Your task to perform on an android device: open sync settings in chrome Image 0: 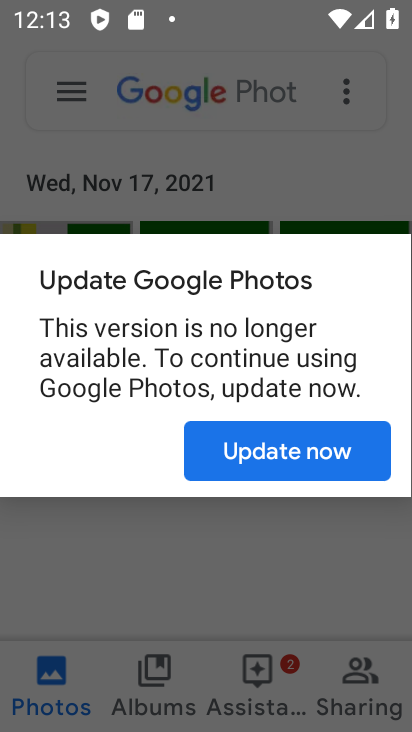
Step 0: press home button
Your task to perform on an android device: open sync settings in chrome Image 1: 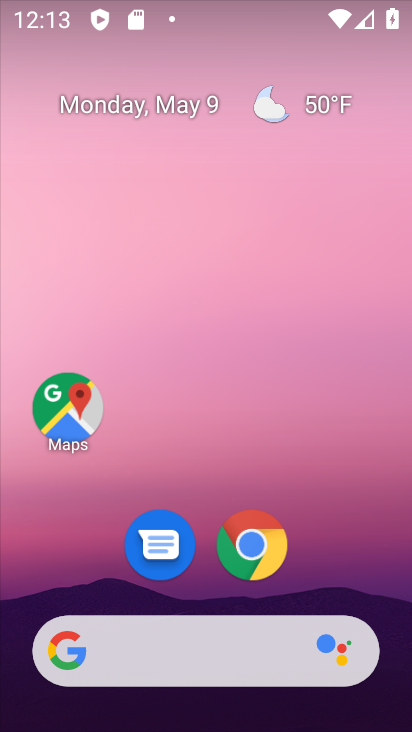
Step 1: click (242, 558)
Your task to perform on an android device: open sync settings in chrome Image 2: 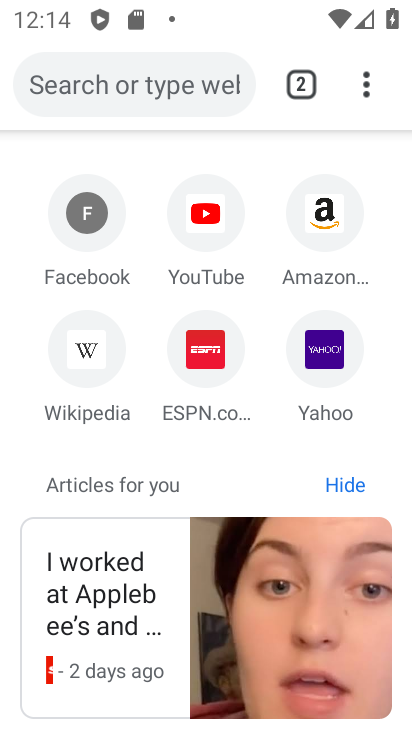
Step 2: click (367, 83)
Your task to perform on an android device: open sync settings in chrome Image 3: 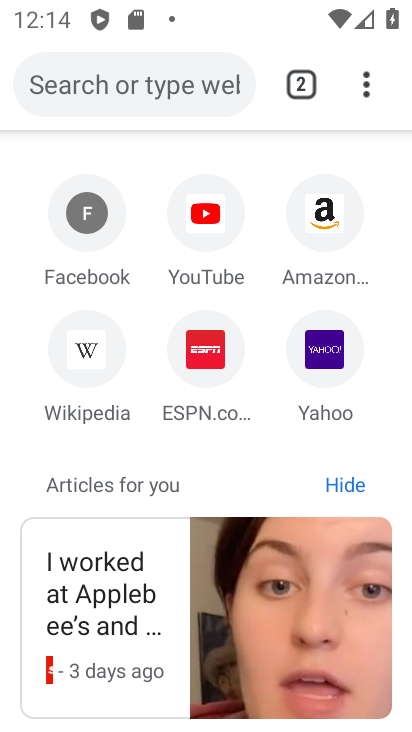
Step 3: drag from (359, 81) to (122, 601)
Your task to perform on an android device: open sync settings in chrome Image 4: 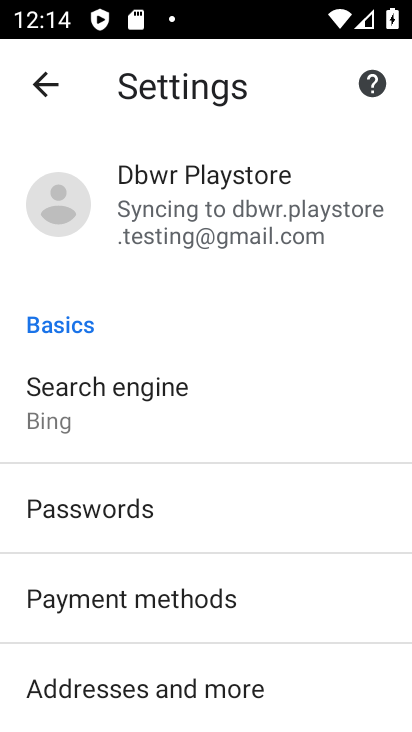
Step 4: click (202, 219)
Your task to perform on an android device: open sync settings in chrome Image 5: 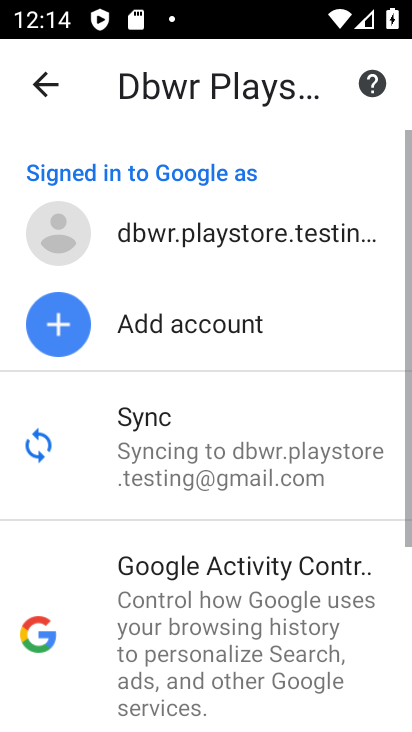
Step 5: click (171, 428)
Your task to perform on an android device: open sync settings in chrome Image 6: 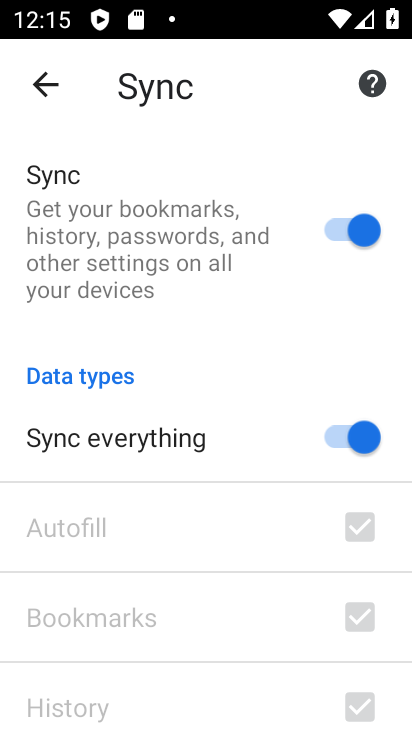
Step 6: task complete